Your task to perform on an android device: Go to battery settings Image 0: 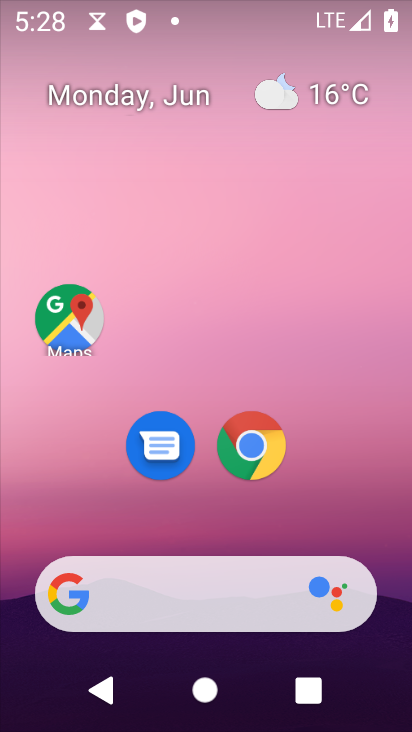
Step 0: drag from (337, 516) to (265, 58)
Your task to perform on an android device: Go to battery settings Image 1: 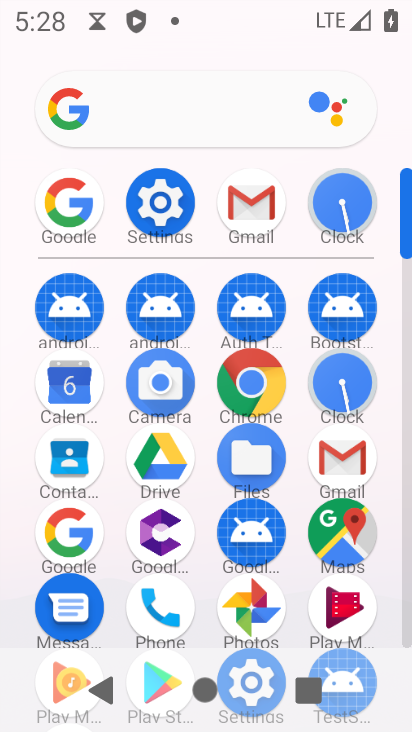
Step 1: click (161, 202)
Your task to perform on an android device: Go to battery settings Image 2: 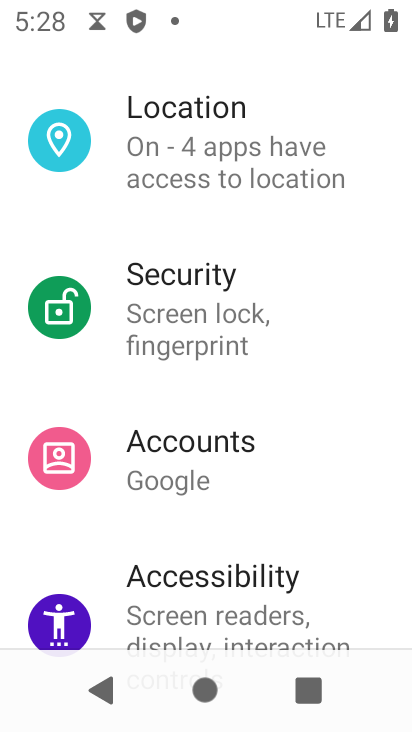
Step 2: drag from (317, 135) to (326, 594)
Your task to perform on an android device: Go to battery settings Image 3: 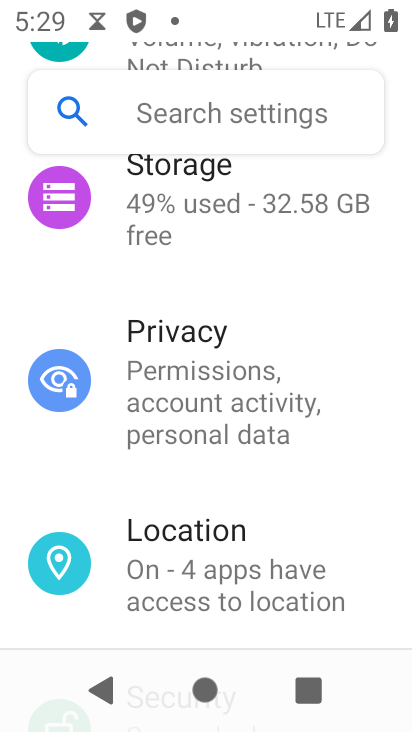
Step 3: drag from (289, 265) to (337, 591)
Your task to perform on an android device: Go to battery settings Image 4: 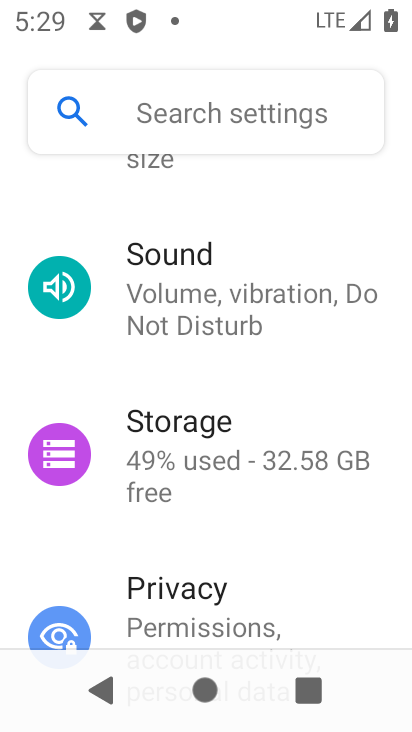
Step 4: drag from (318, 209) to (356, 560)
Your task to perform on an android device: Go to battery settings Image 5: 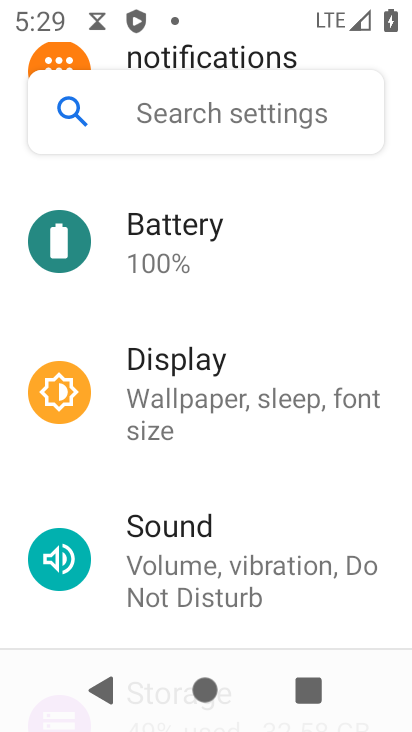
Step 5: click (204, 252)
Your task to perform on an android device: Go to battery settings Image 6: 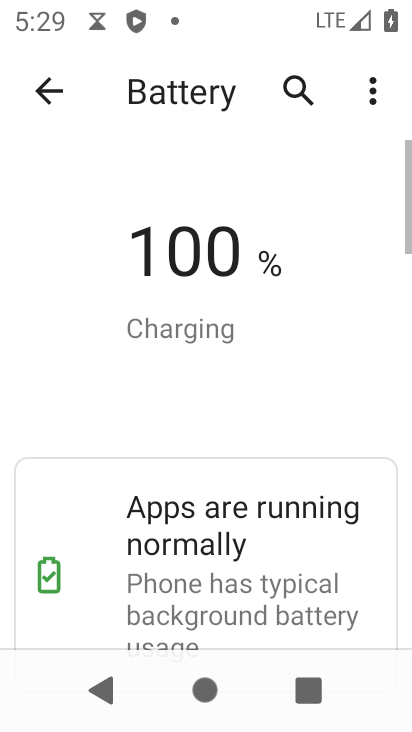
Step 6: task complete